Your task to perform on an android device: find which apps use the phone's location Image 0: 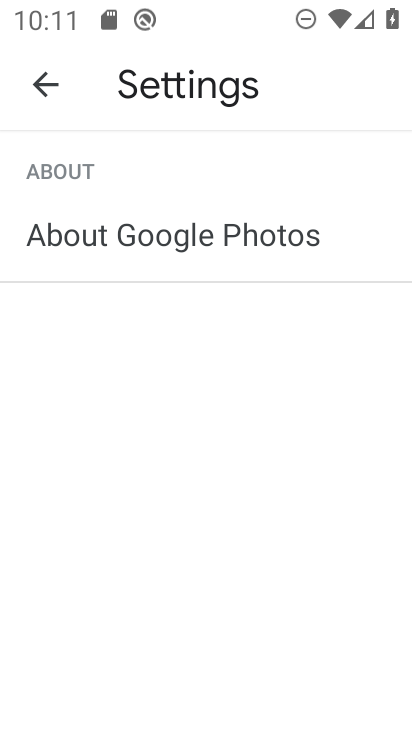
Step 0: press home button
Your task to perform on an android device: find which apps use the phone's location Image 1: 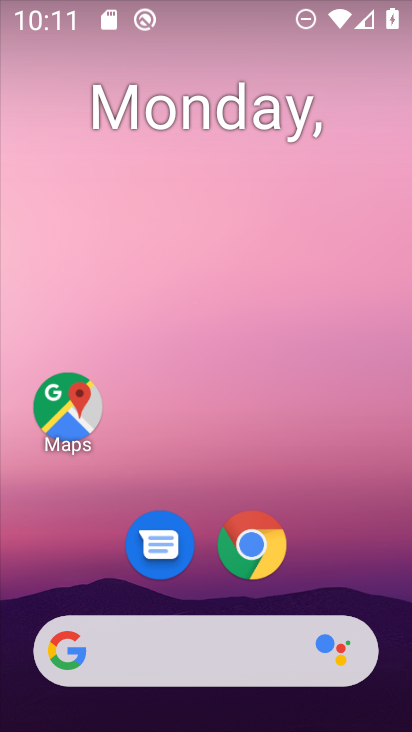
Step 1: drag from (29, 498) to (209, 187)
Your task to perform on an android device: find which apps use the phone's location Image 2: 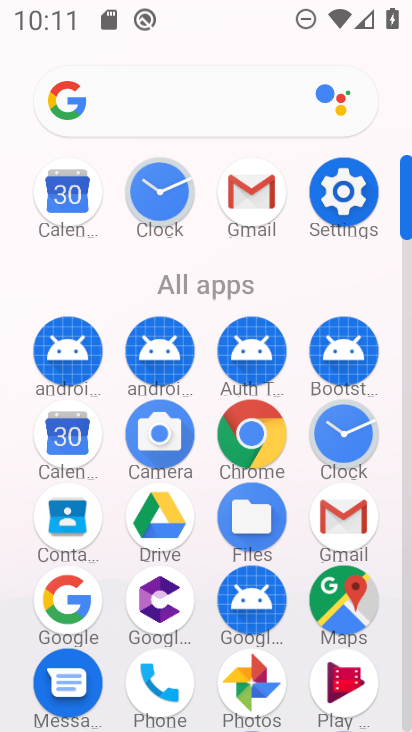
Step 2: click (349, 216)
Your task to perform on an android device: find which apps use the phone's location Image 3: 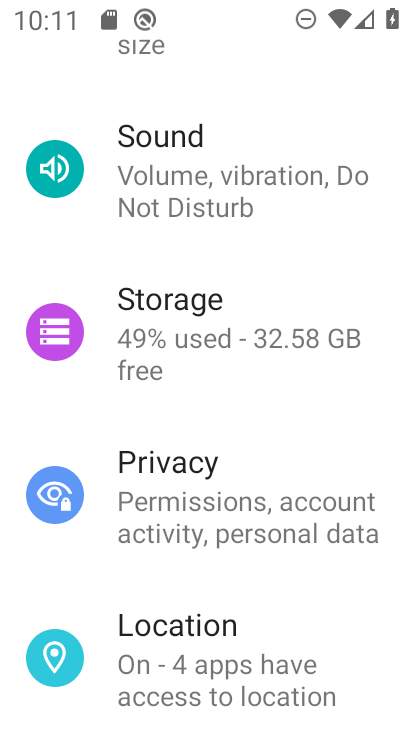
Step 3: click (257, 668)
Your task to perform on an android device: find which apps use the phone's location Image 4: 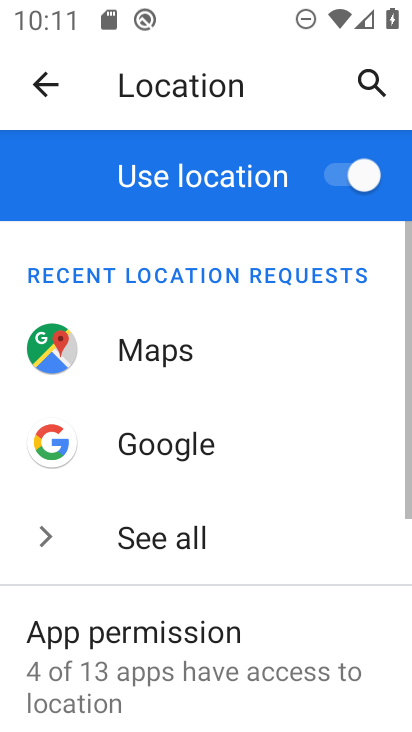
Step 4: click (52, 676)
Your task to perform on an android device: find which apps use the phone's location Image 5: 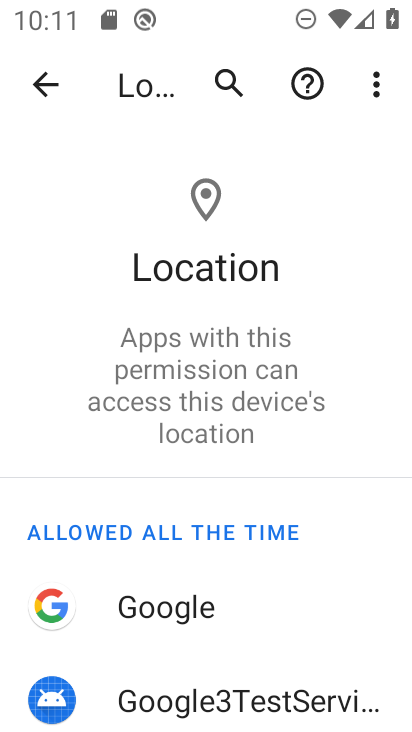
Step 5: task complete